Your task to perform on an android device: delete the emails in spam in the gmail app Image 0: 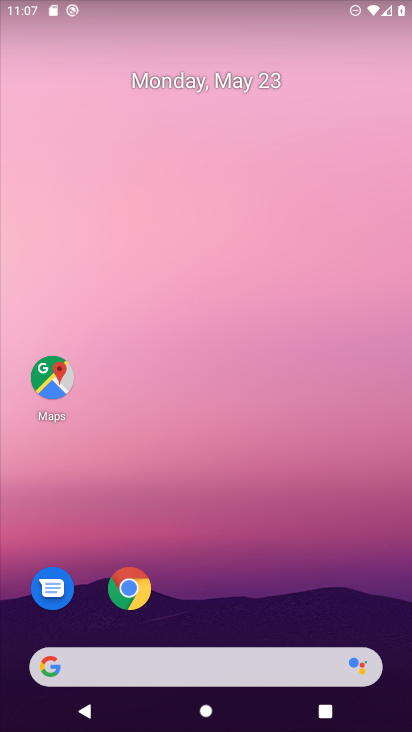
Step 0: drag from (290, 590) to (305, 75)
Your task to perform on an android device: delete the emails in spam in the gmail app Image 1: 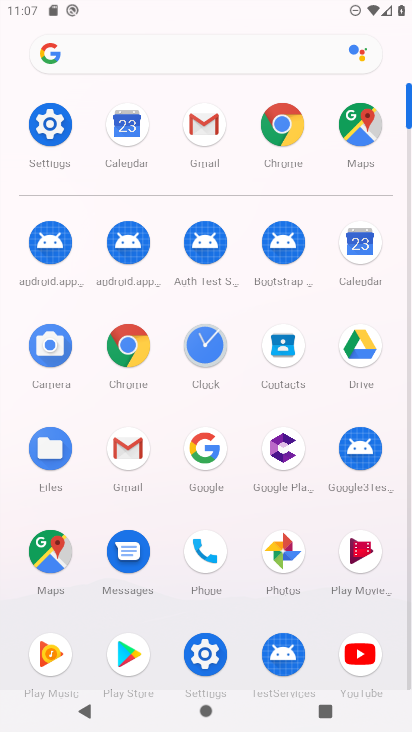
Step 1: click (210, 131)
Your task to perform on an android device: delete the emails in spam in the gmail app Image 2: 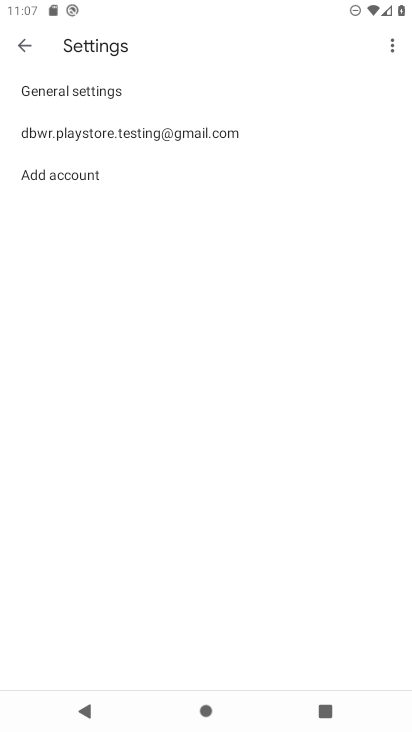
Step 2: click (23, 51)
Your task to perform on an android device: delete the emails in spam in the gmail app Image 3: 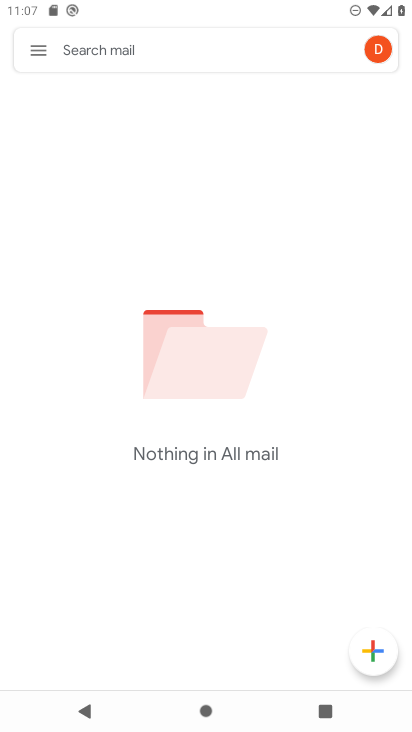
Step 3: click (32, 52)
Your task to perform on an android device: delete the emails in spam in the gmail app Image 4: 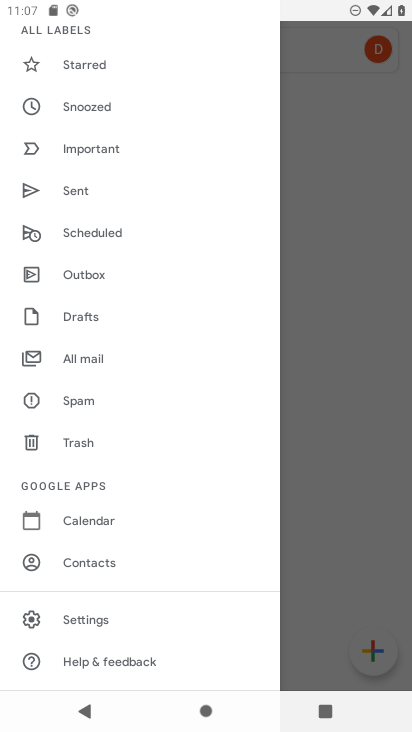
Step 4: click (121, 286)
Your task to perform on an android device: delete the emails in spam in the gmail app Image 5: 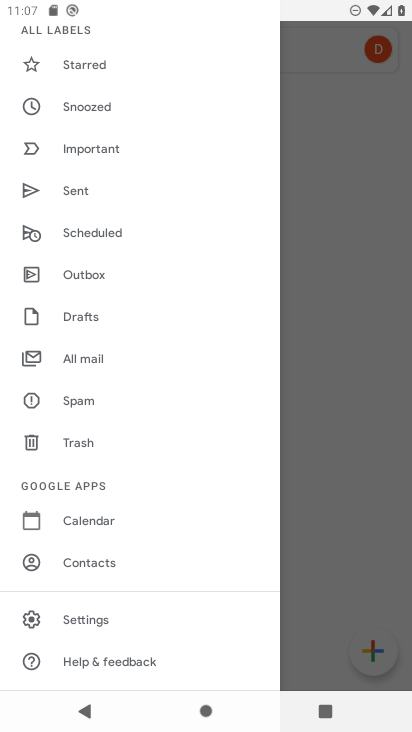
Step 5: click (86, 391)
Your task to perform on an android device: delete the emails in spam in the gmail app Image 6: 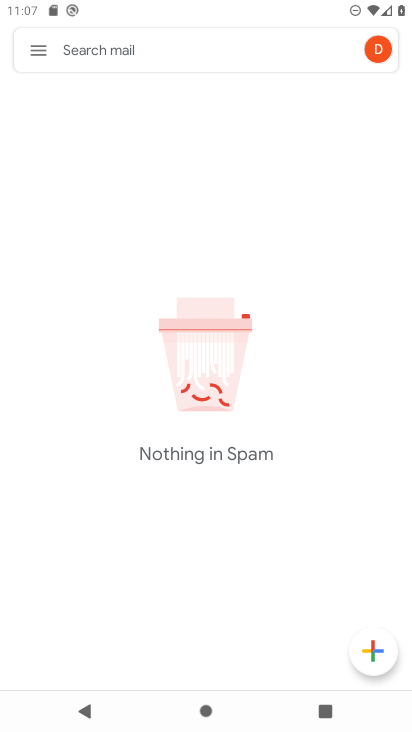
Step 6: task complete